Your task to perform on an android device: Go to Reddit.com Image 0: 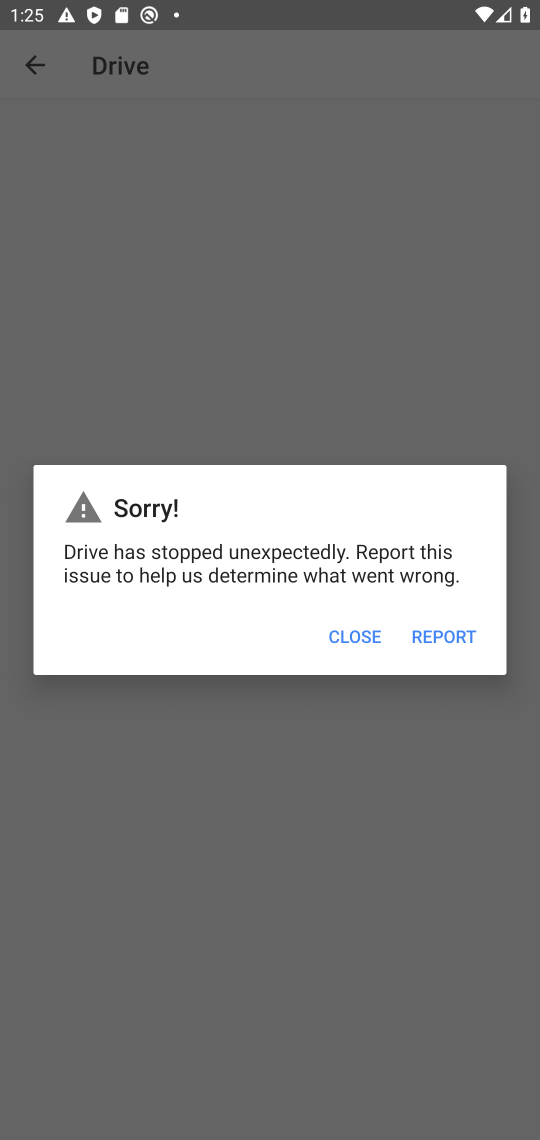
Step 0: press home button
Your task to perform on an android device: Go to Reddit.com Image 1: 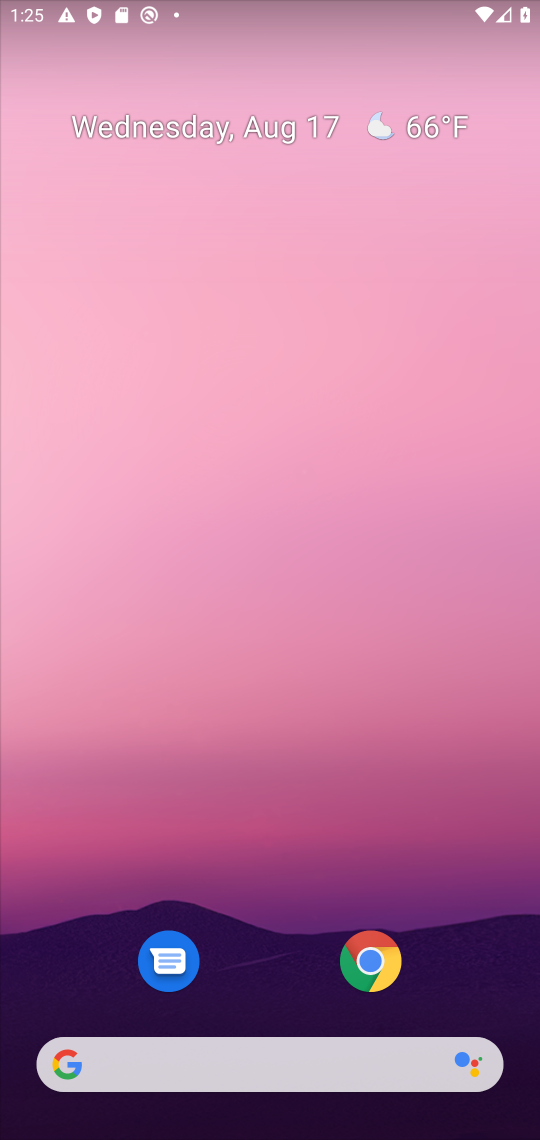
Step 1: drag from (305, 999) to (371, 229)
Your task to perform on an android device: Go to Reddit.com Image 2: 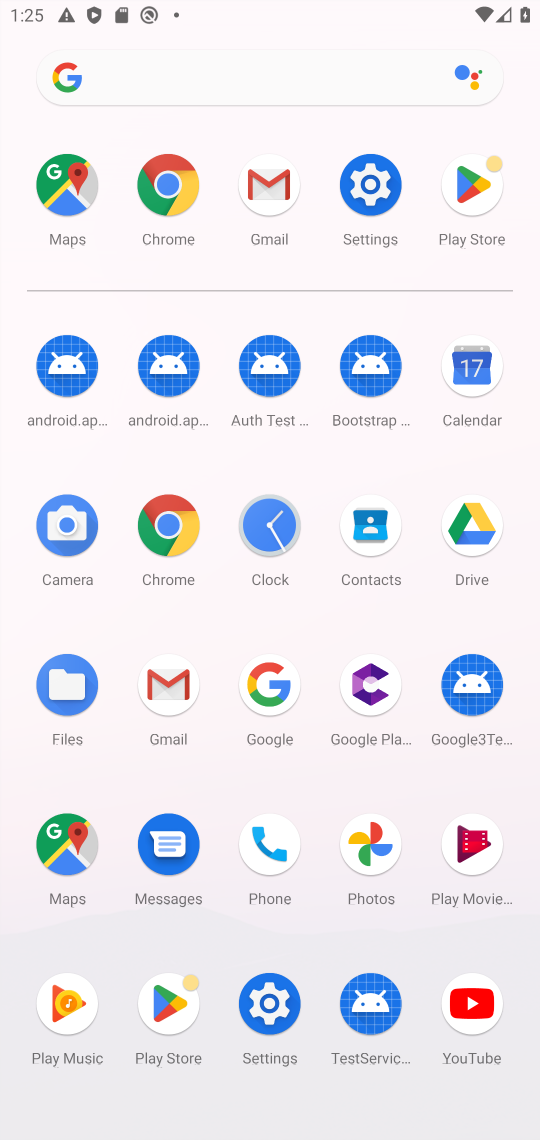
Step 2: click (191, 194)
Your task to perform on an android device: Go to Reddit.com Image 3: 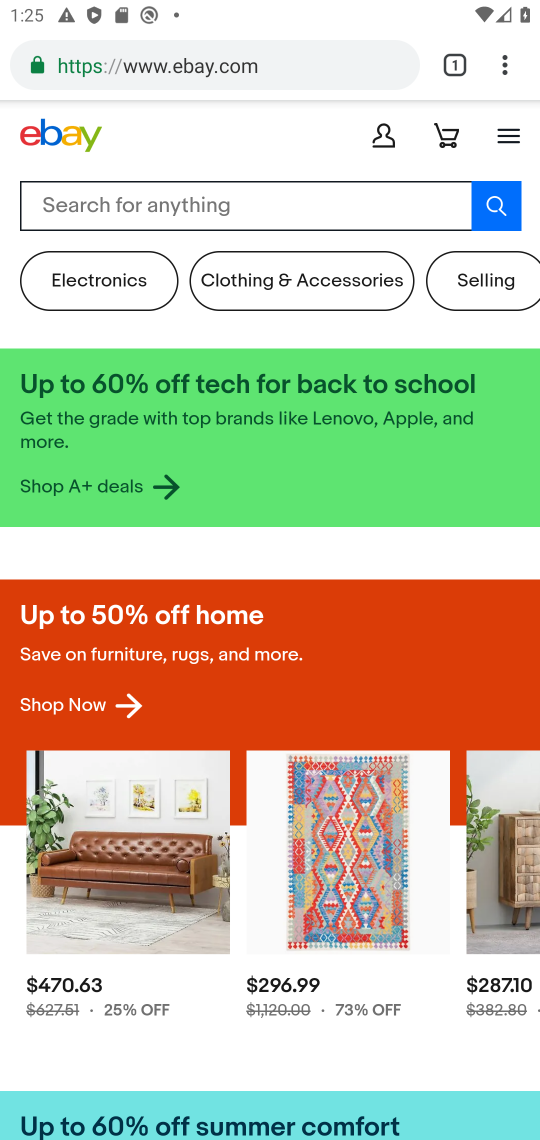
Step 3: click (339, 67)
Your task to perform on an android device: Go to Reddit.com Image 4: 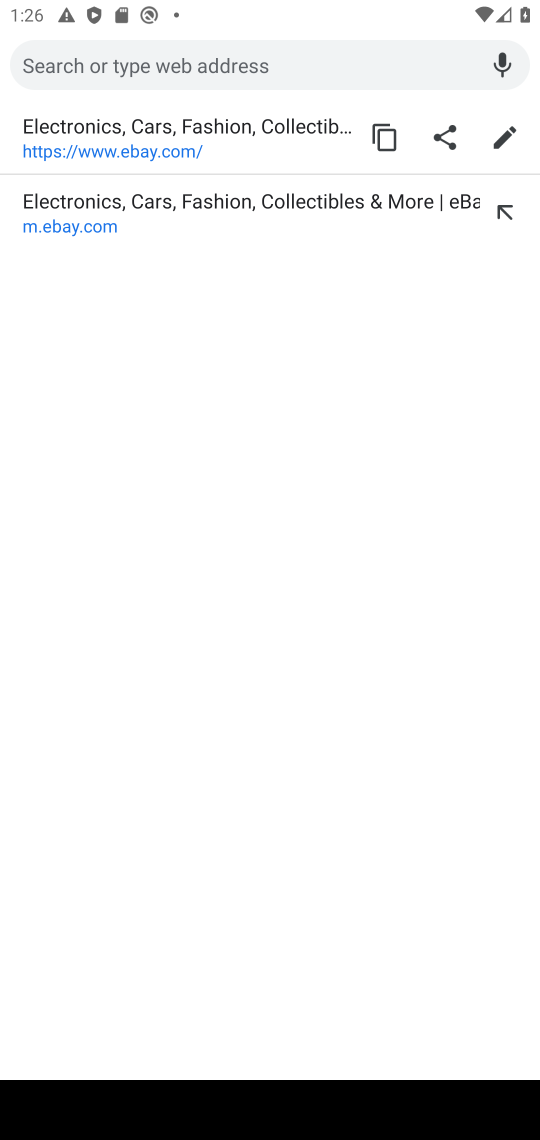
Step 4: type "reddit"
Your task to perform on an android device: Go to Reddit.com Image 5: 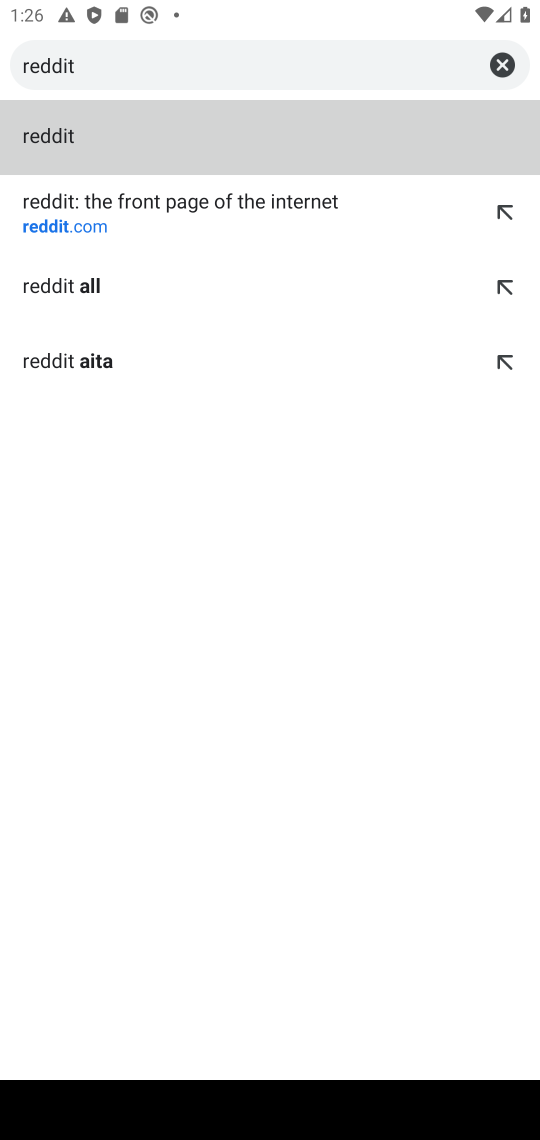
Step 5: click (228, 206)
Your task to perform on an android device: Go to Reddit.com Image 6: 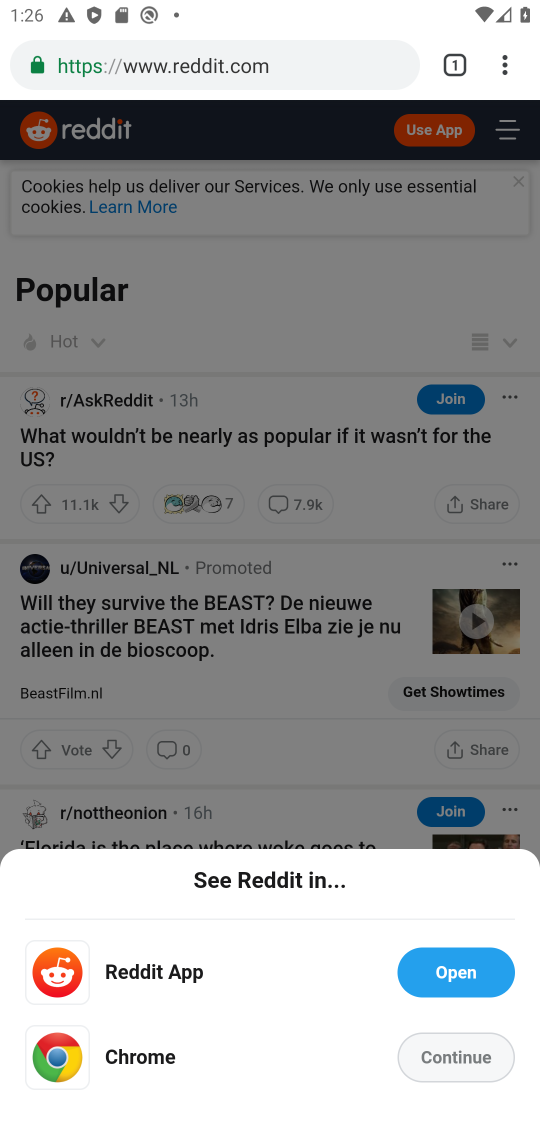
Step 6: task complete